Your task to perform on an android device: toggle wifi Image 0: 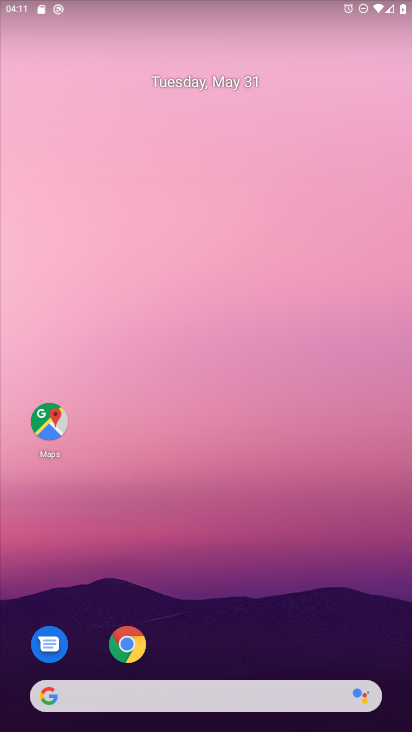
Step 0: drag from (248, 545) to (228, 56)
Your task to perform on an android device: toggle wifi Image 1: 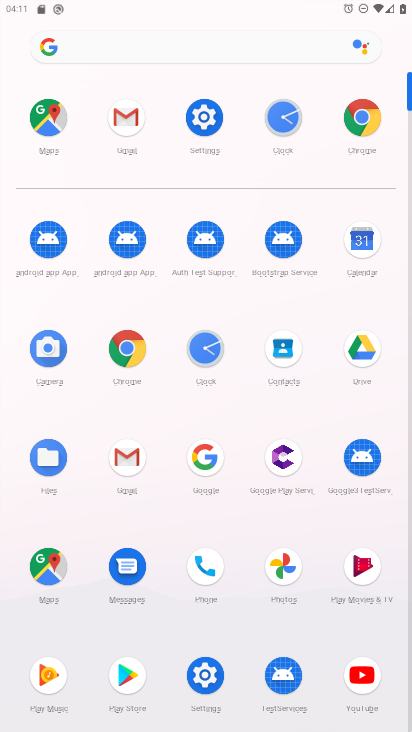
Step 1: click (201, 113)
Your task to perform on an android device: toggle wifi Image 2: 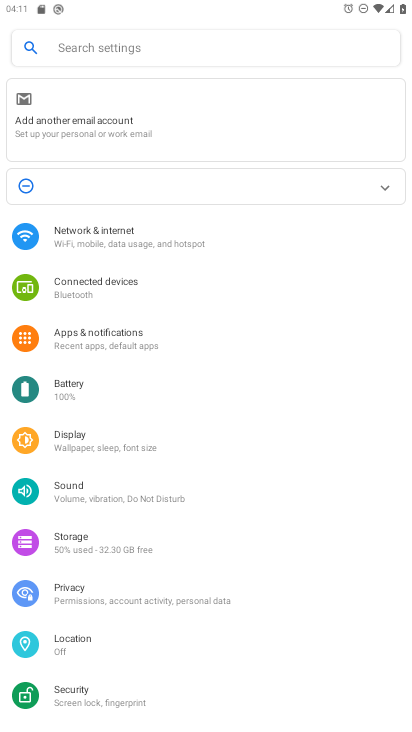
Step 2: click (115, 239)
Your task to perform on an android device: toggle wifi Image 3: 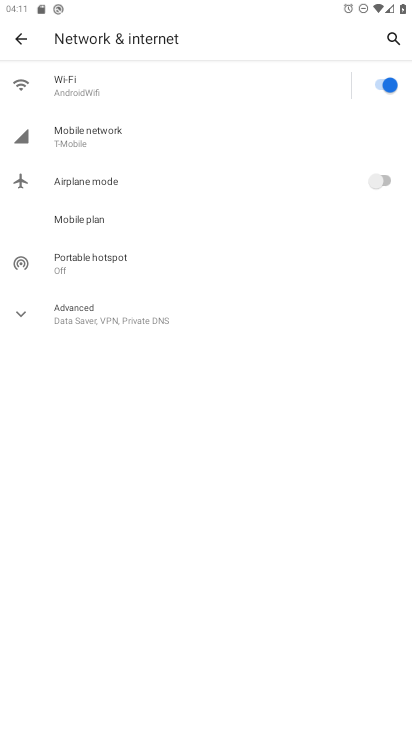
Step 3: click (259, 84)
Your task to perform on an android device: toggle wifi Image 4: 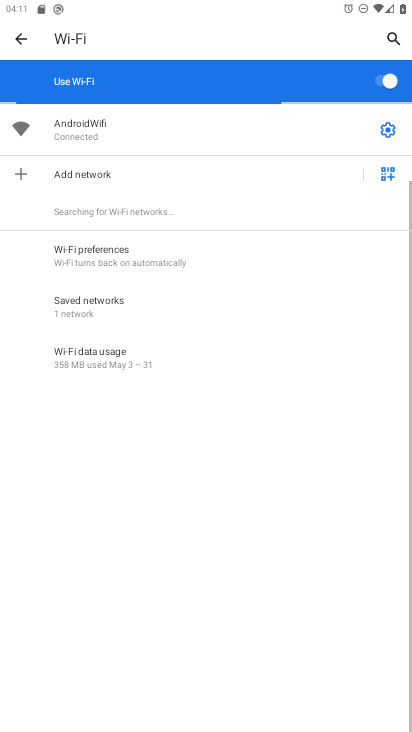
Step 4: click (366, 79)
Your task to perform on an android device: toggle wifi Image 5: 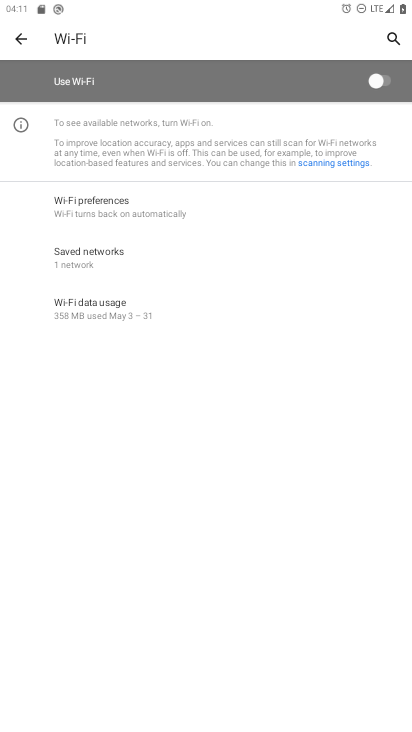
Step 5: task complete